Your task to perform on an android device: What's the weather today? Image 0: 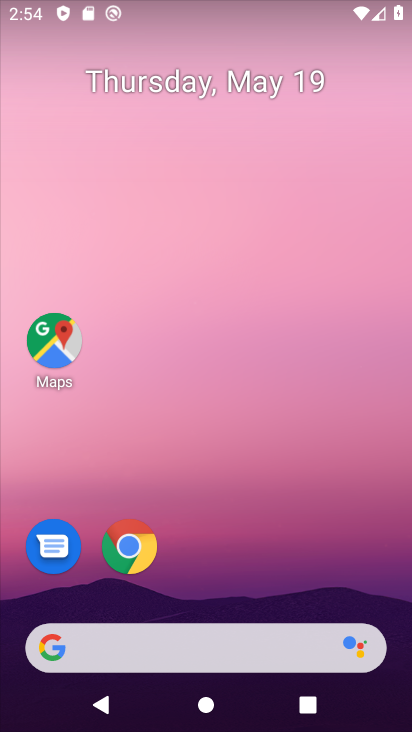
Step 0: click (199, 661)
Your task to perform on an android device: What's the weather today? Image 1: 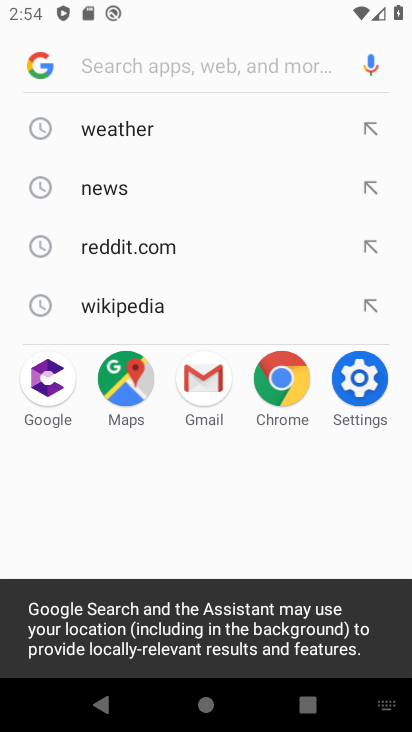
Step 1: click (113, 129)
Your task to perform on an android device: What's the weather today? Image 2: 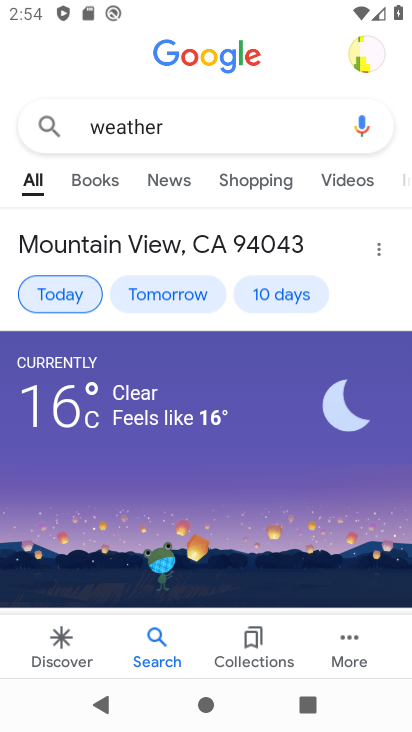
Step 2: task complete